Your task to perform on an android device: Show the shopping cart on walmart. Add macbook pro 13 inch to the cart on walmart Image 0: 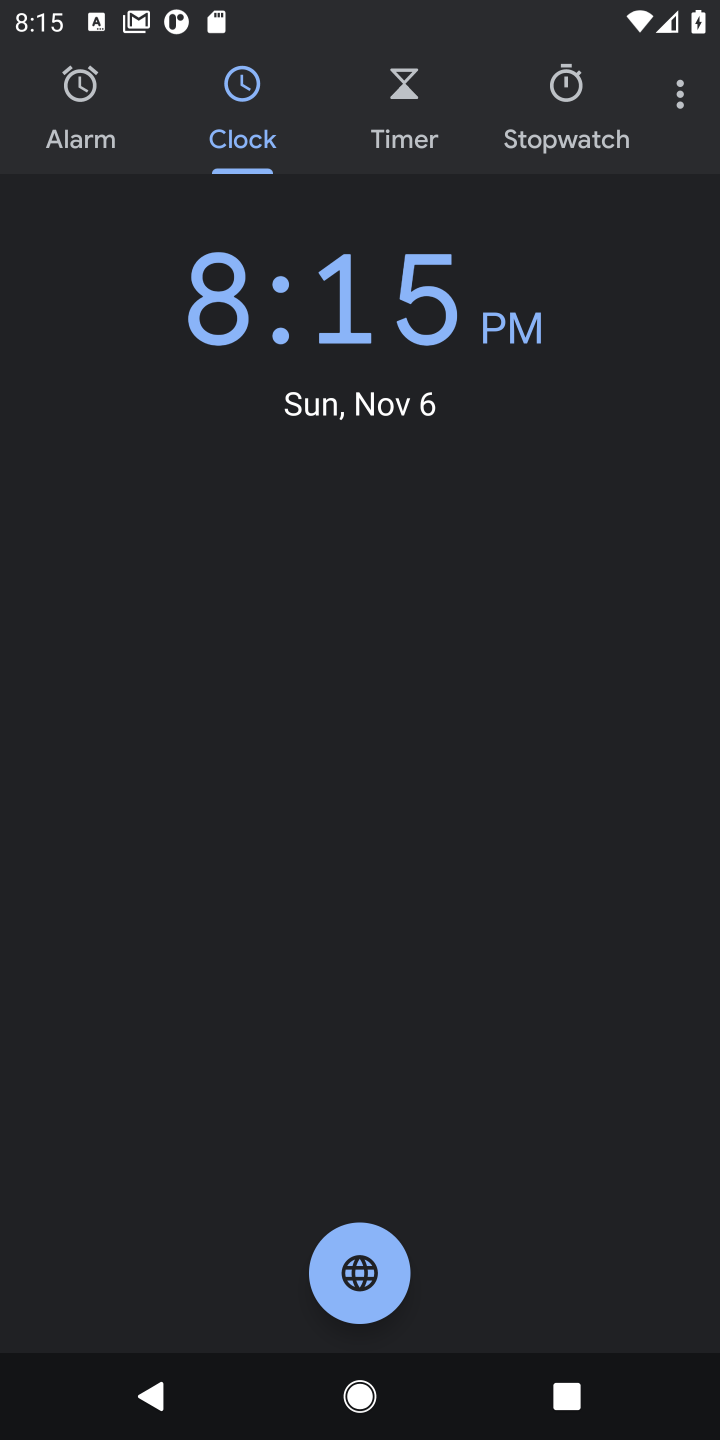
Step 0: press home button
Your task to perform on an android device: Show the shopping cart on walmart. Add macbook pro 13 inch to the cart on walmart Image 1: 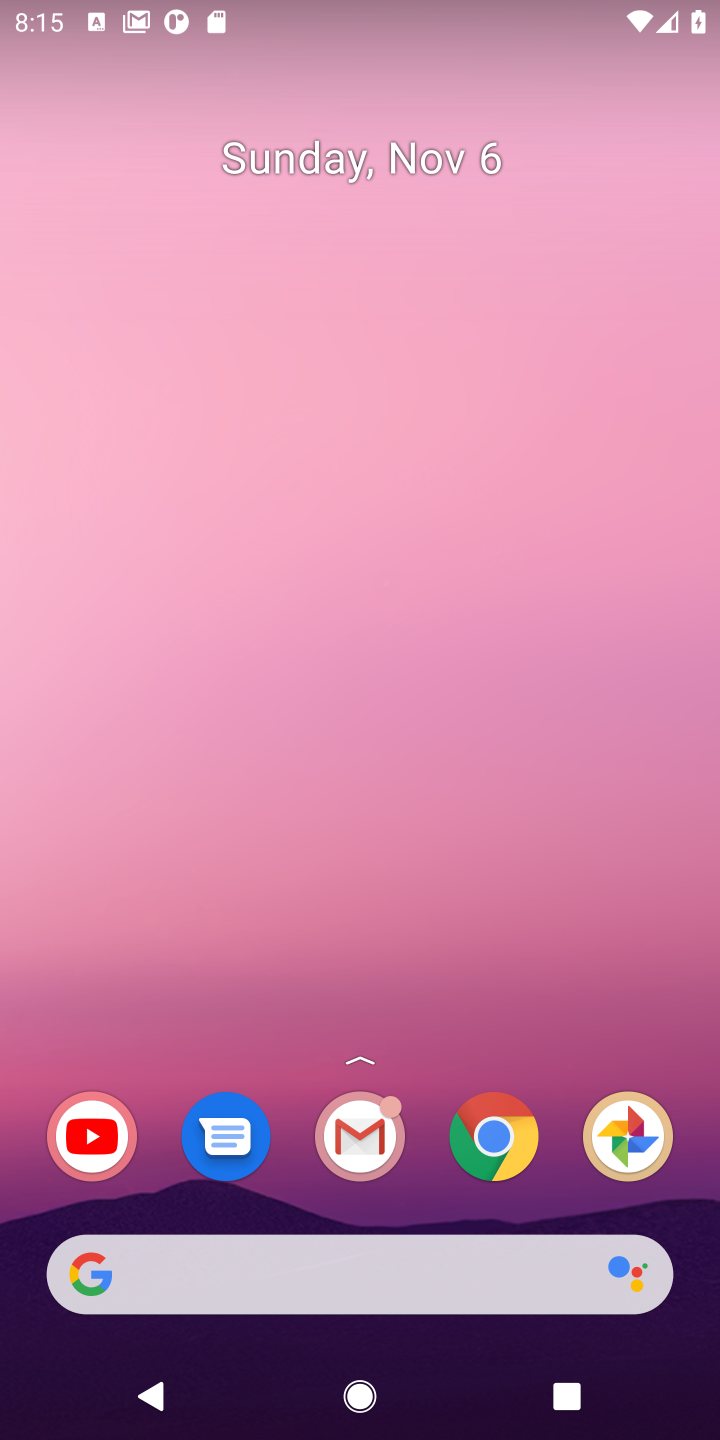
Step 1: click (328, 1269)
Your task to perform on an android device: Show the shopping cart on walmart. Add macbook pro 13 inch to the cart on walmart Image 2: 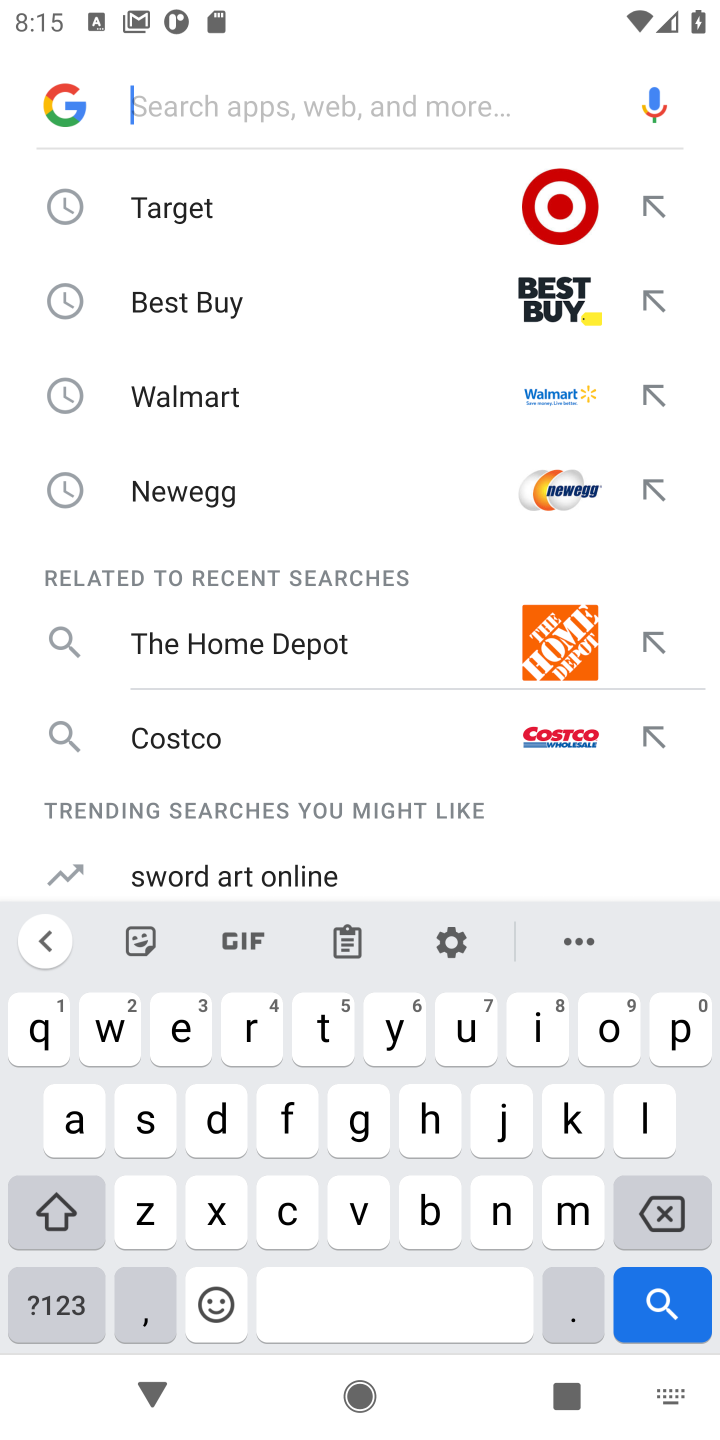
Step 2: type "walmart"
Your task to perform on an android device: Show the shopping cart on walmart. Add macbook pro 13 inch to the cart on walmart Image 3: 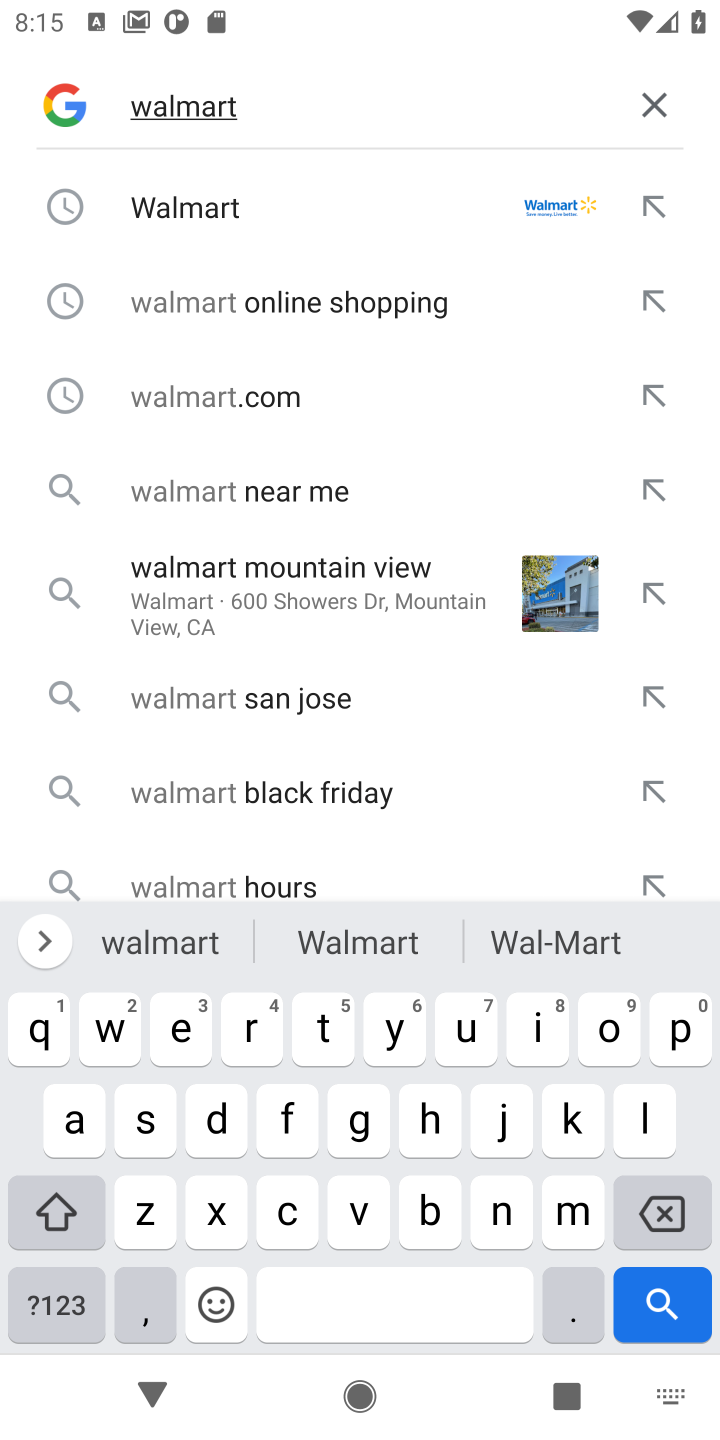
Step 3: click (255, 388)
Your task to perform on an android device: Show the shopping cart on walmart. Add macbook pro 13 inch to the cart on walmart Image 4: 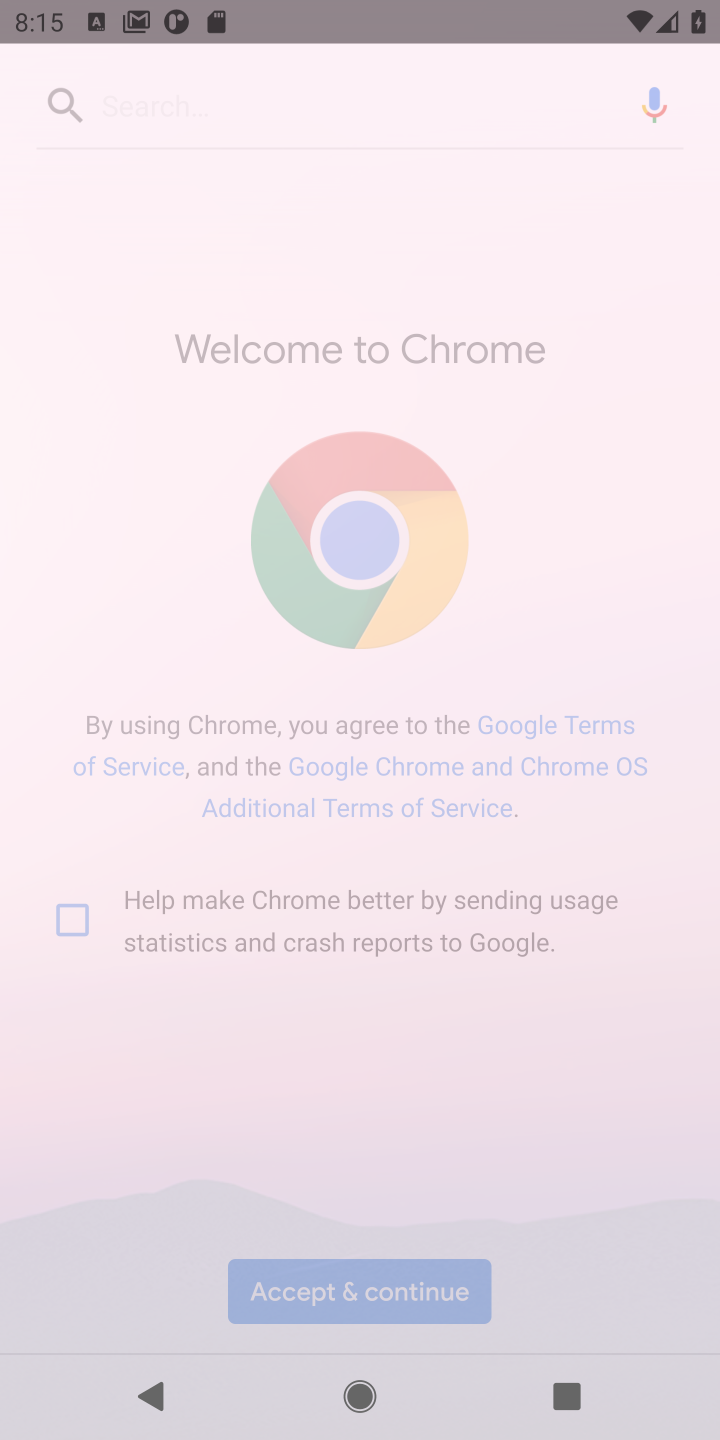
Step 4: click (404, 190)
Your task to perform on an android device: Show the shopping cart on walmart. Add macbook pro 13 inch to the cart on walmart Image 5: 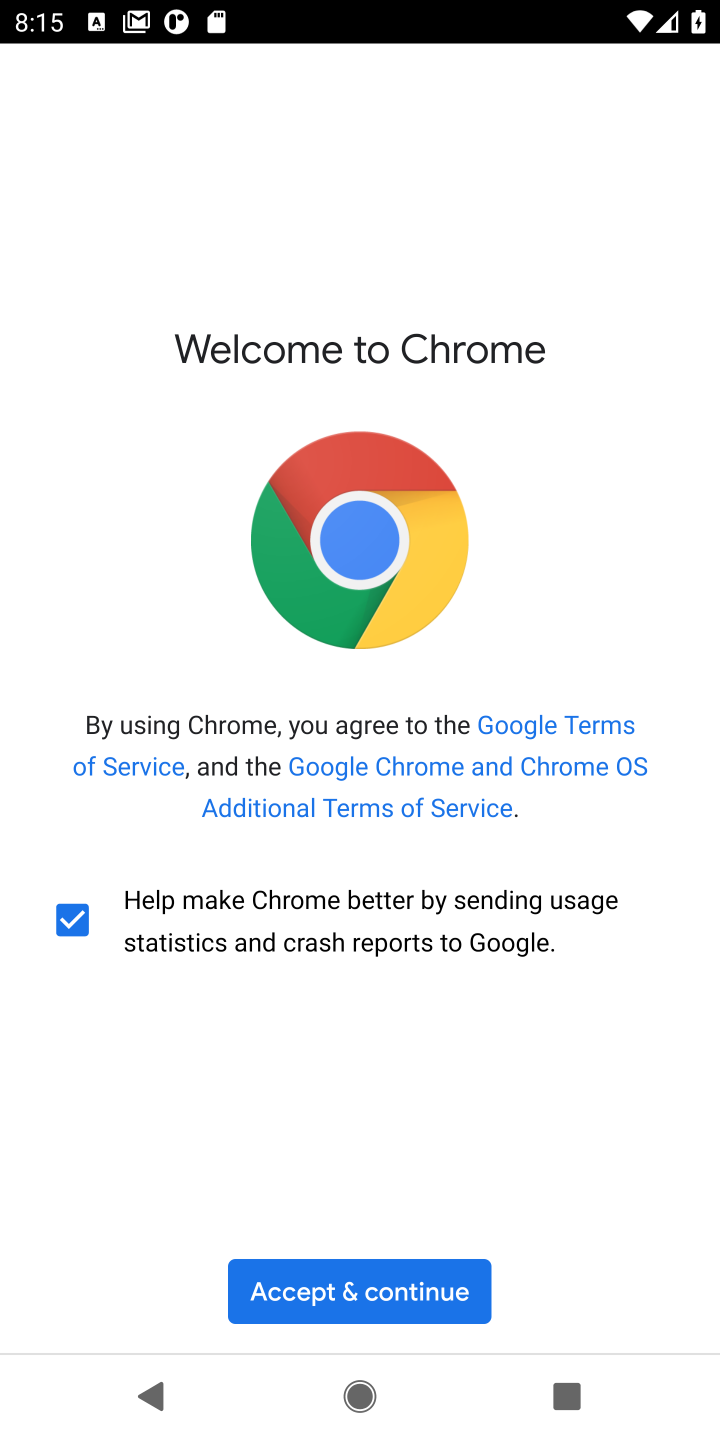
Step 5: click (402, 1289)
Your task to perform on an android device: Show the shopping cart on walmart. Add macbook pro 13 inch to the cart on walmart Image 6: 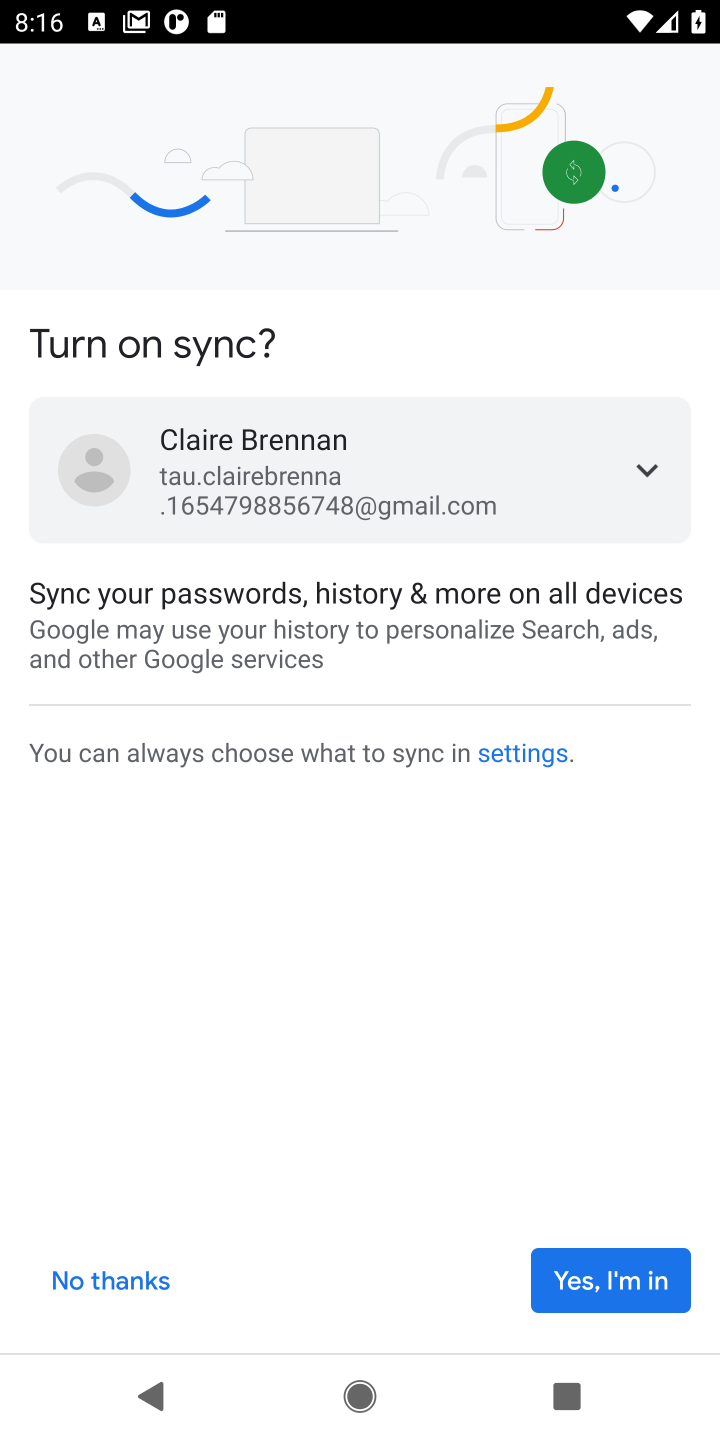
Step 6: click (592, 1307)
Your task to perform on an android device: Show the shopping cart on walmart. Add macbook pro 13 inch to the cart on walmart Image 7: 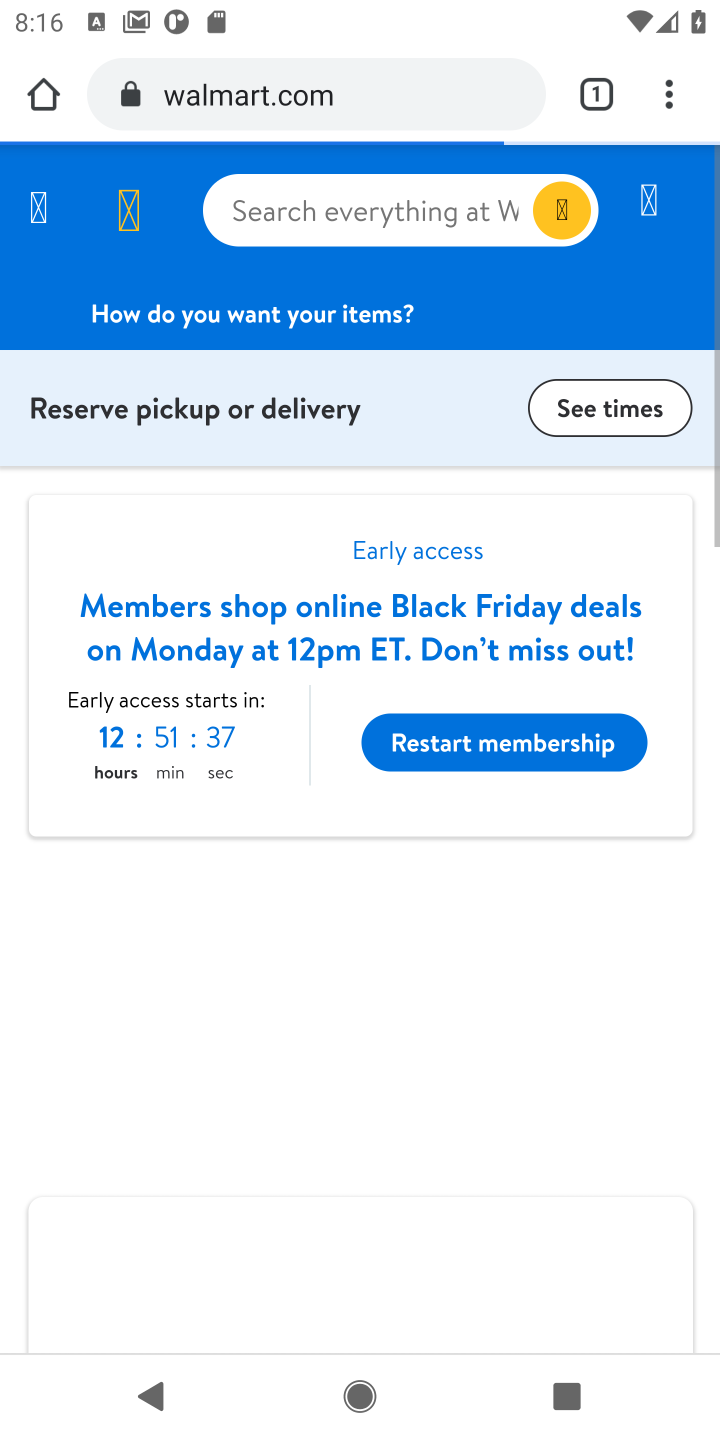
Step 7: task complete